Your task to perform on an android device: Clear the cart on target. Add razer blade to the cart on target Image 0: 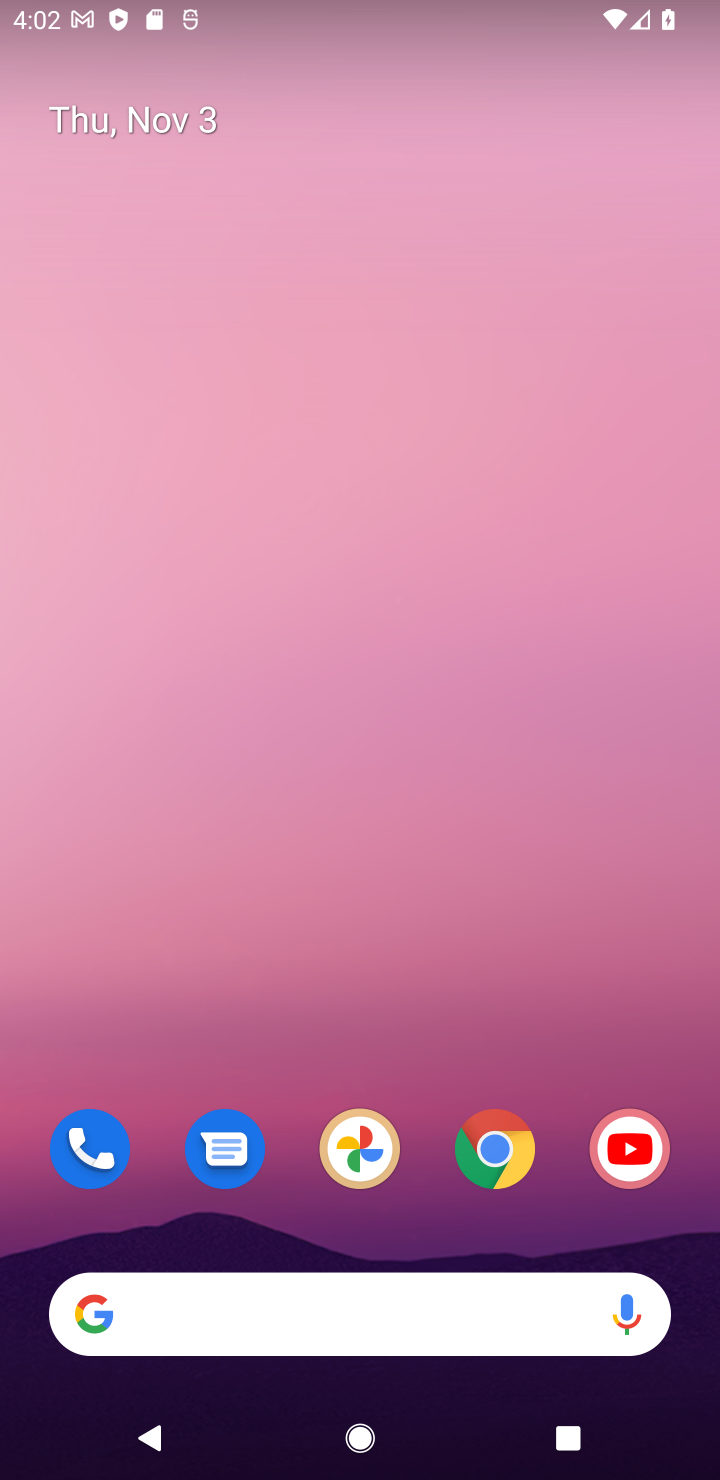
Step 0: drag from (428, 1057) to (710, 2)
Your task to perform on an android device: Clear the cart on target. Add razer blade to the cart on target Image 1: 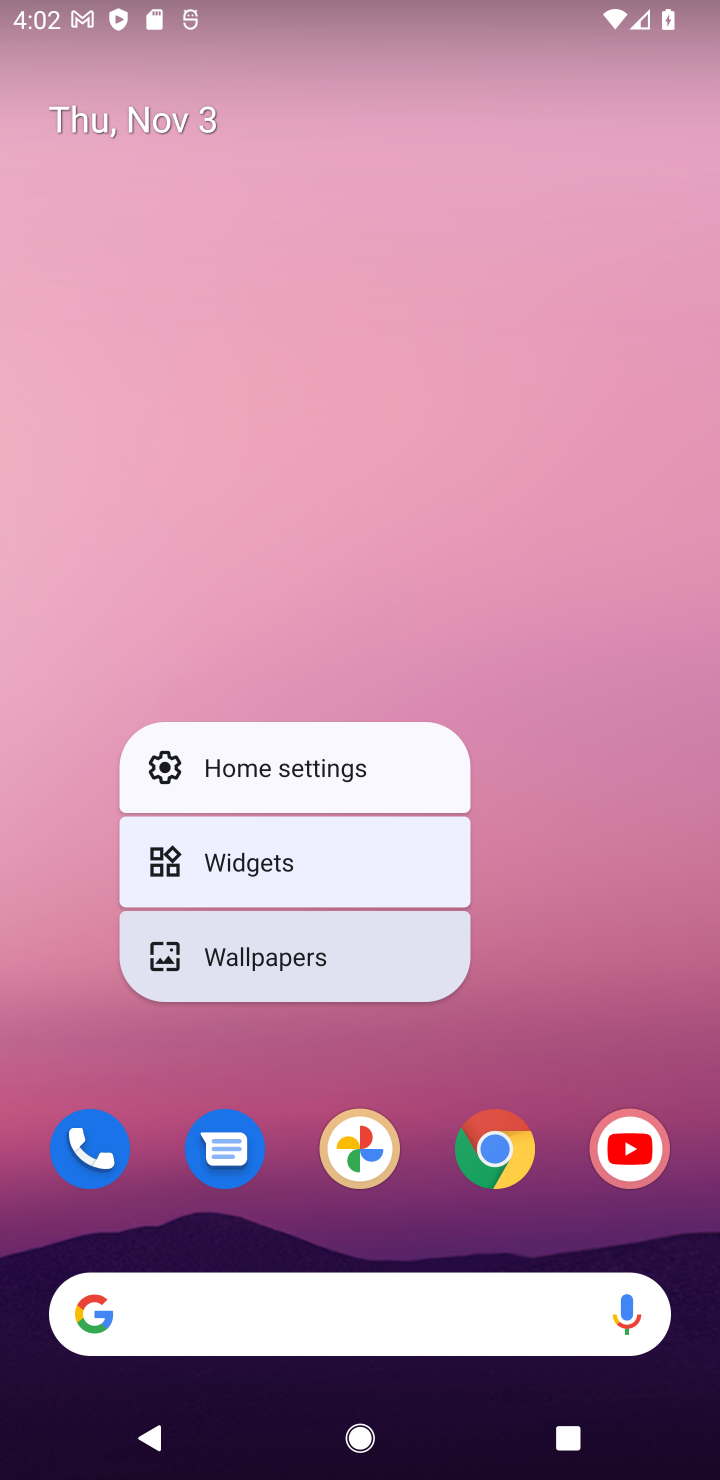
Step 1: click (408, 451)
Your task to perform on an android device: Clear the cart on target. Add razer blade to the cart on target Image 2: 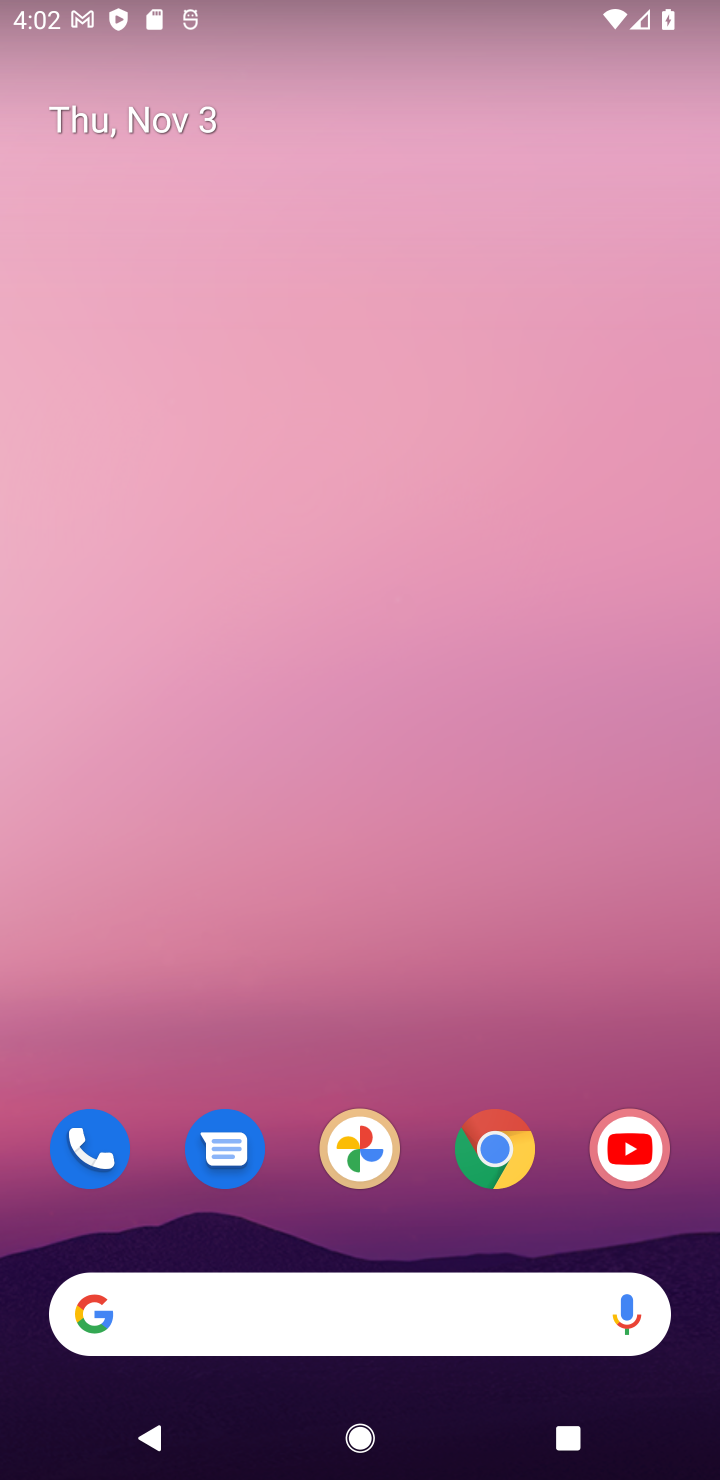
Step 2: drag from (420, 1043) to (330, 99)
Your task to perform on an android device: Clear the cart on target. Add razer blade to the cart on target Image 3: 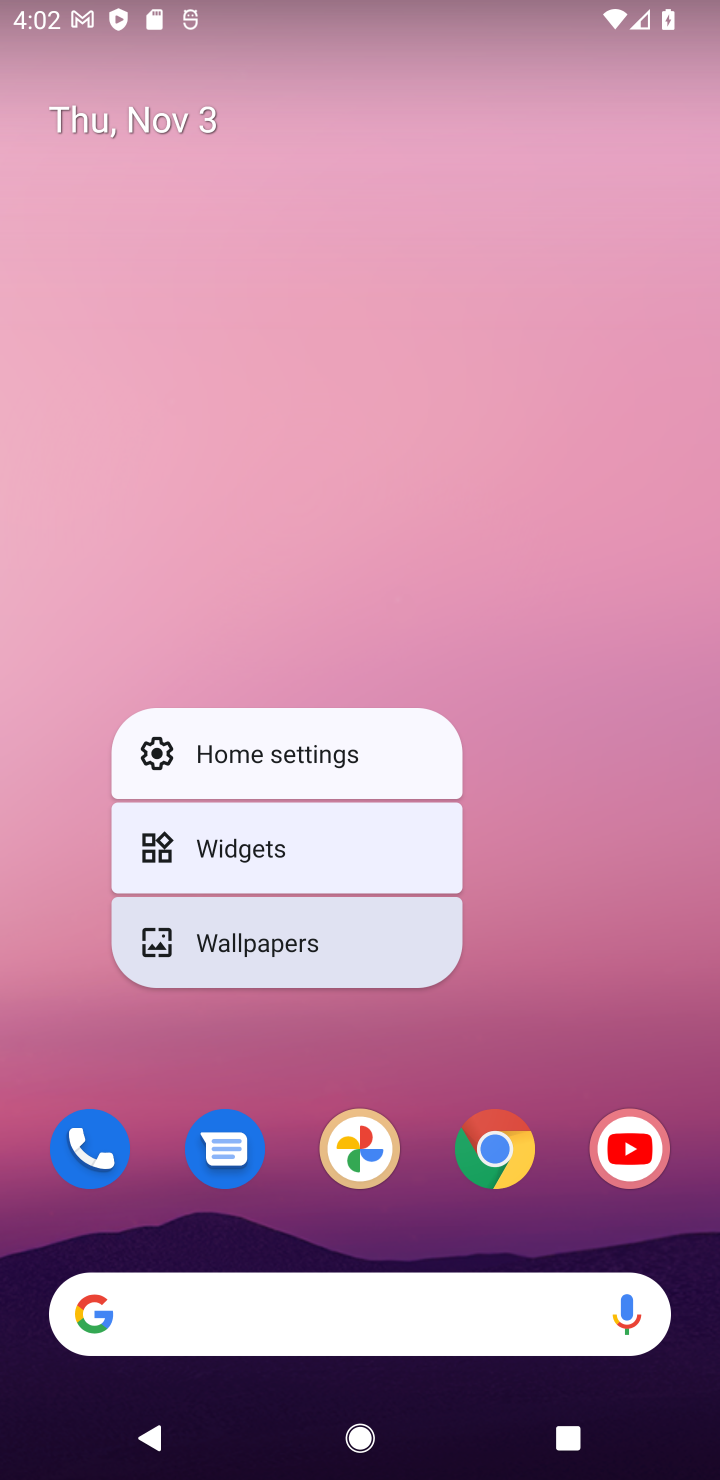
Step 3: click (568, 701)
Your task to perform on an android device: Clear the cart on target. Add razer blade to the cart on target Image 4: 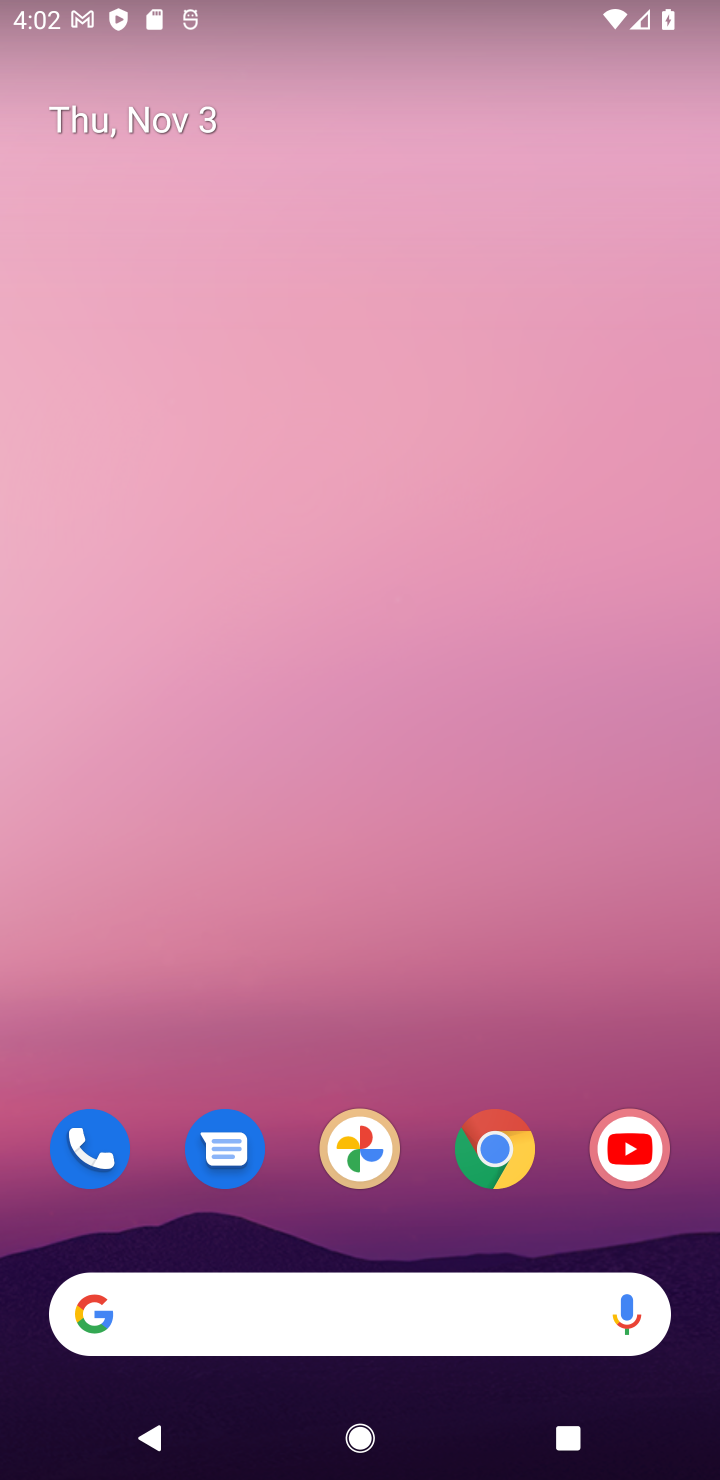
Step 4: drag from (533, 1011) to (417, 143)
Your task to perform on an android device: Clear the cart on target. Add razer blade to the cart on target Image 5: 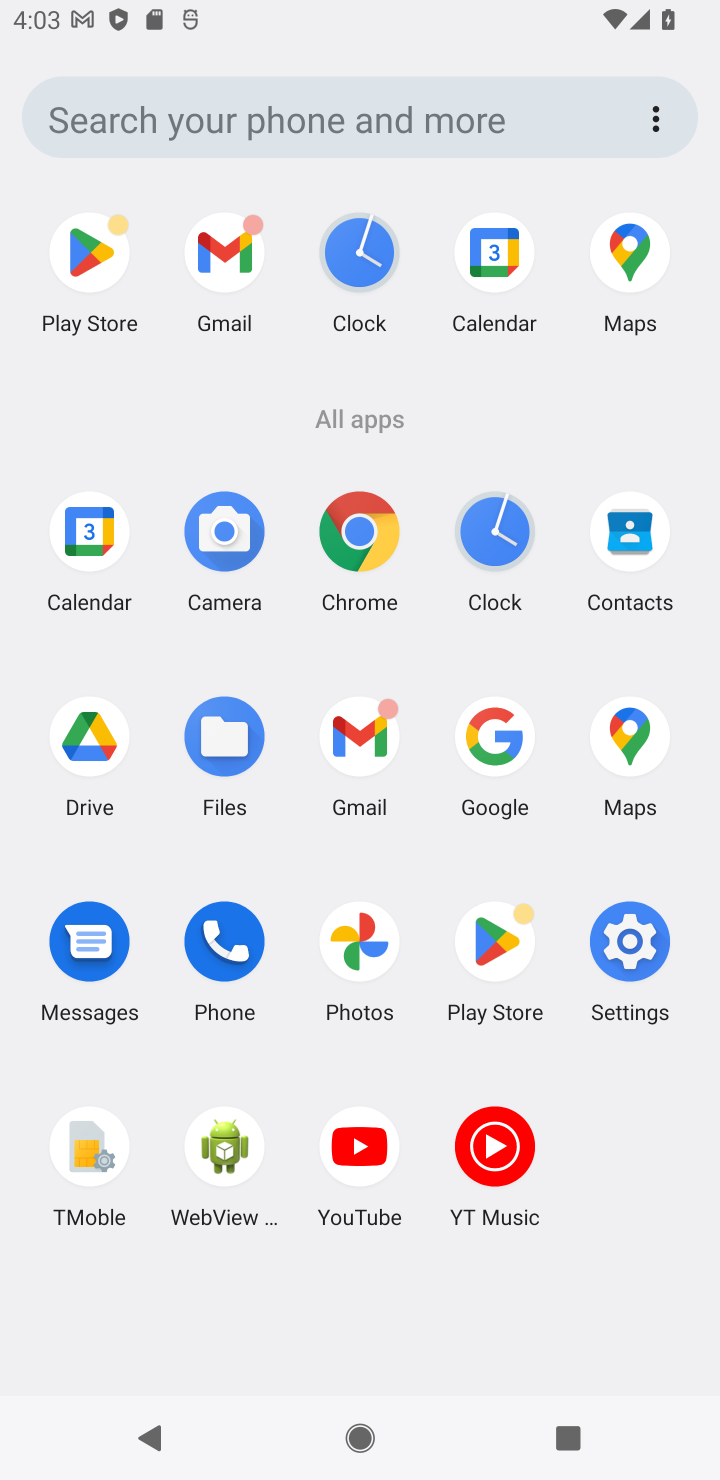
Step 5: click (364, 531)
Your task to perform on an android device: Clear the cart on target. Add razer blade to the cart on target Image 6: 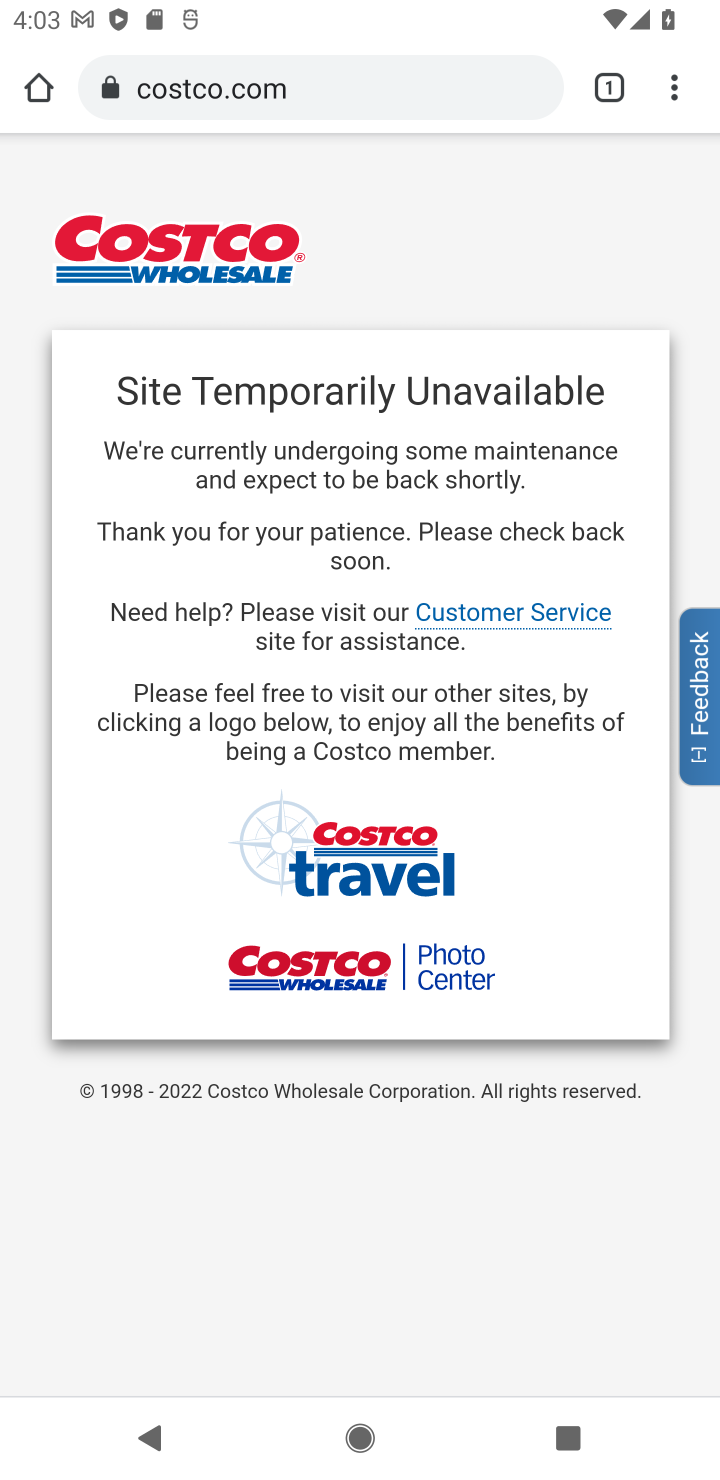
Step 6: click (237, 86)
Your task to perform on an android device: Clear the cart on target. Add razer blade to the cart on target Image 7: 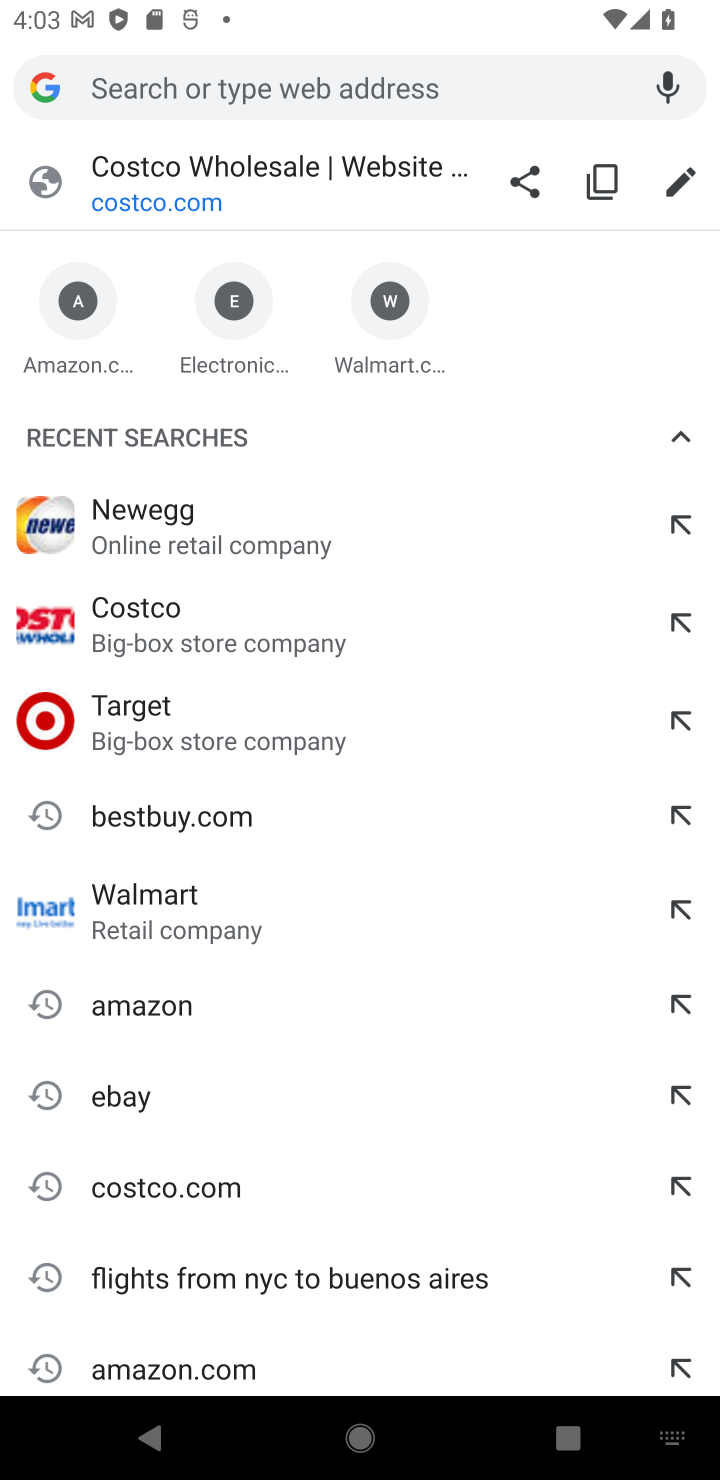
Step 7: type "target"
Your task to perform on an android device: Clear the cart on target. Add razer blade to the cart on target Image 8: 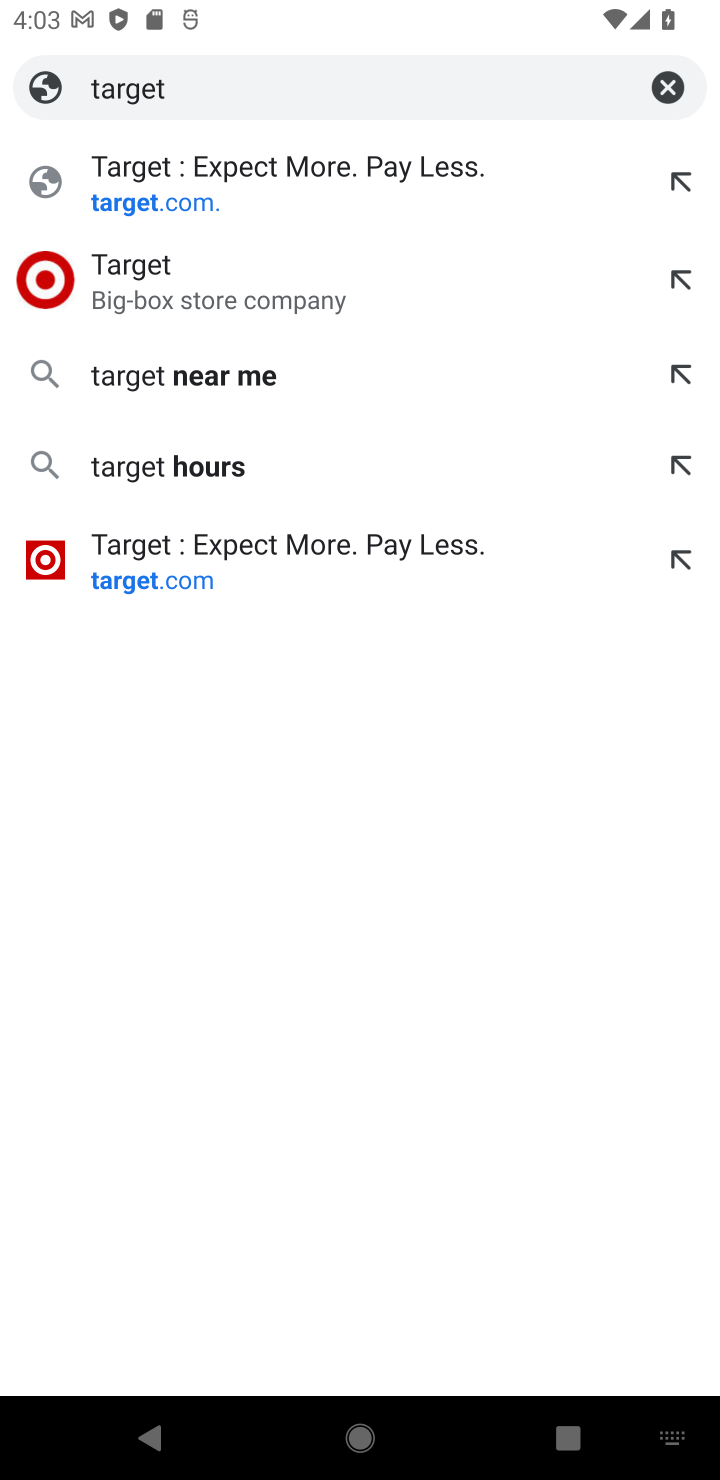
Step 8: click (362, 189)
Your task to perform on an android device: Clear the cart on target. Add razer blade to the cart on target Image 9: 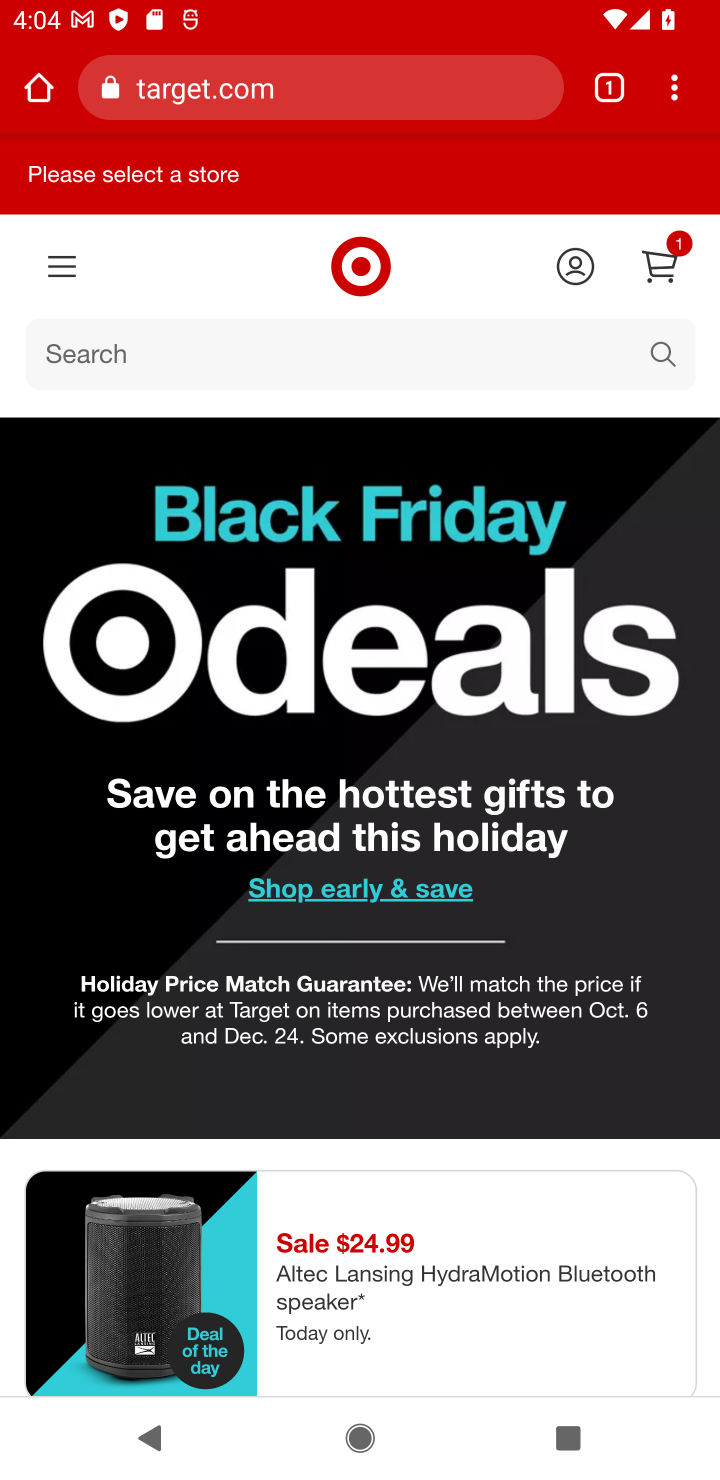
Step 9: click (279, 357)
Your task to perform on an android device: Clear the cart on target. Add razer blade to the cart on target Image 10: 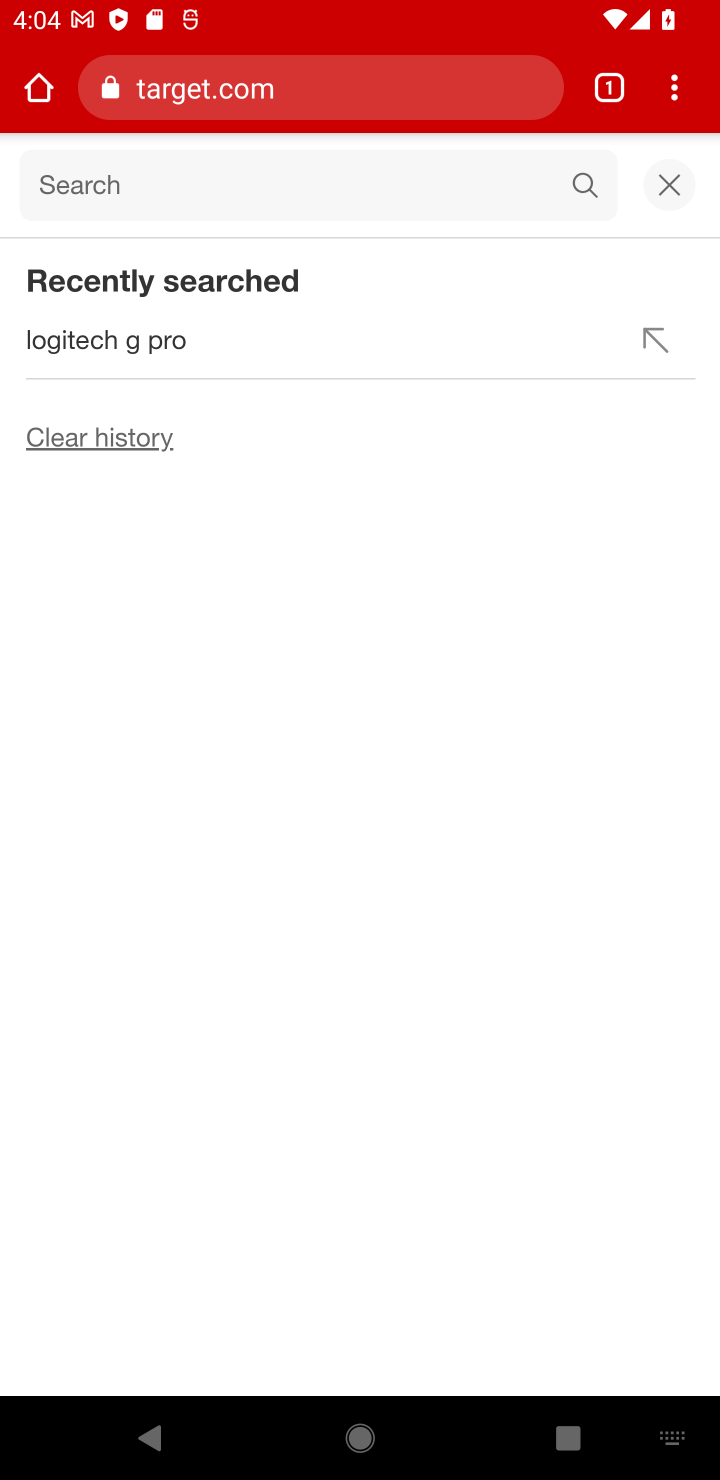
Step 10: click (664, 258)
Your task to perform on an android device: Clear the cart on target. Add razer blade to the cart on target Image 11: 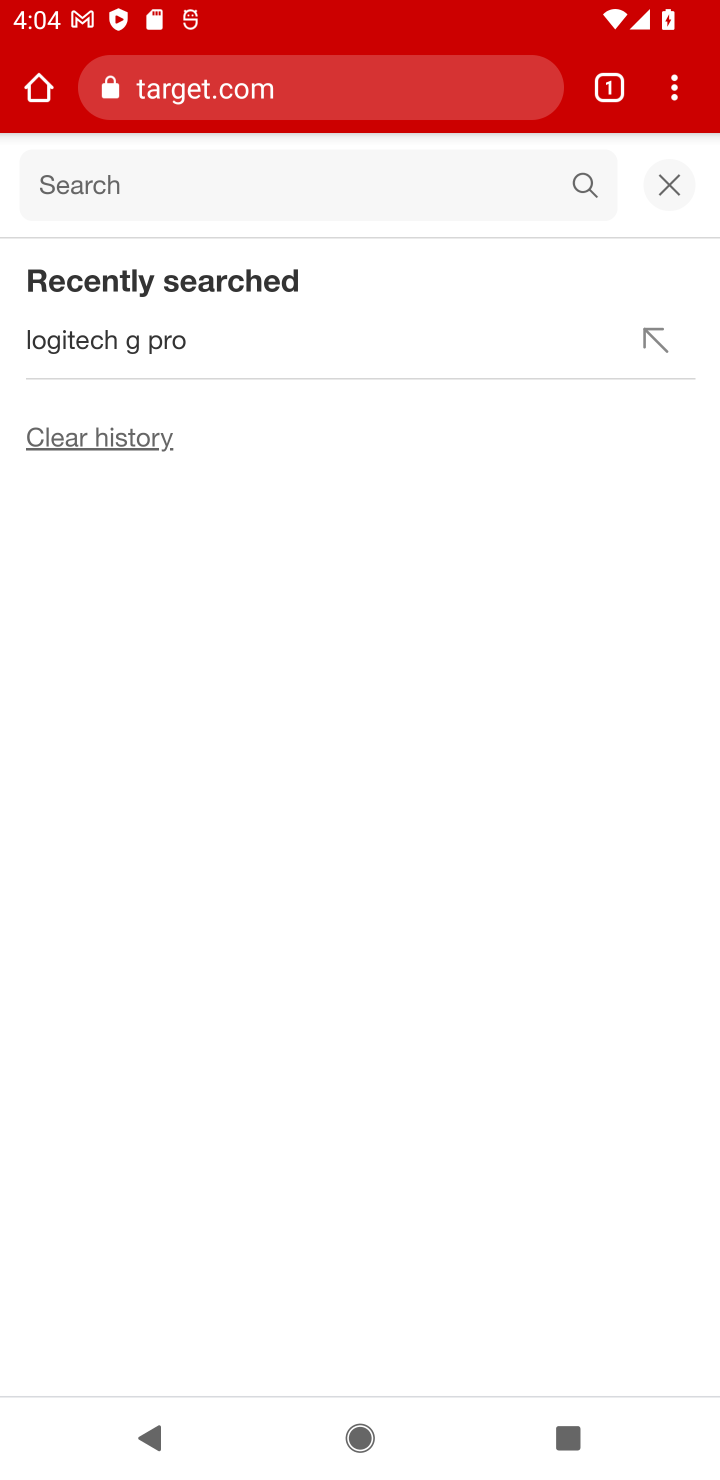
Step 11: click (666, 179)
Your task to perform on an android device: Clear the cart on target. Add razer blade to the cart on target Image 12: 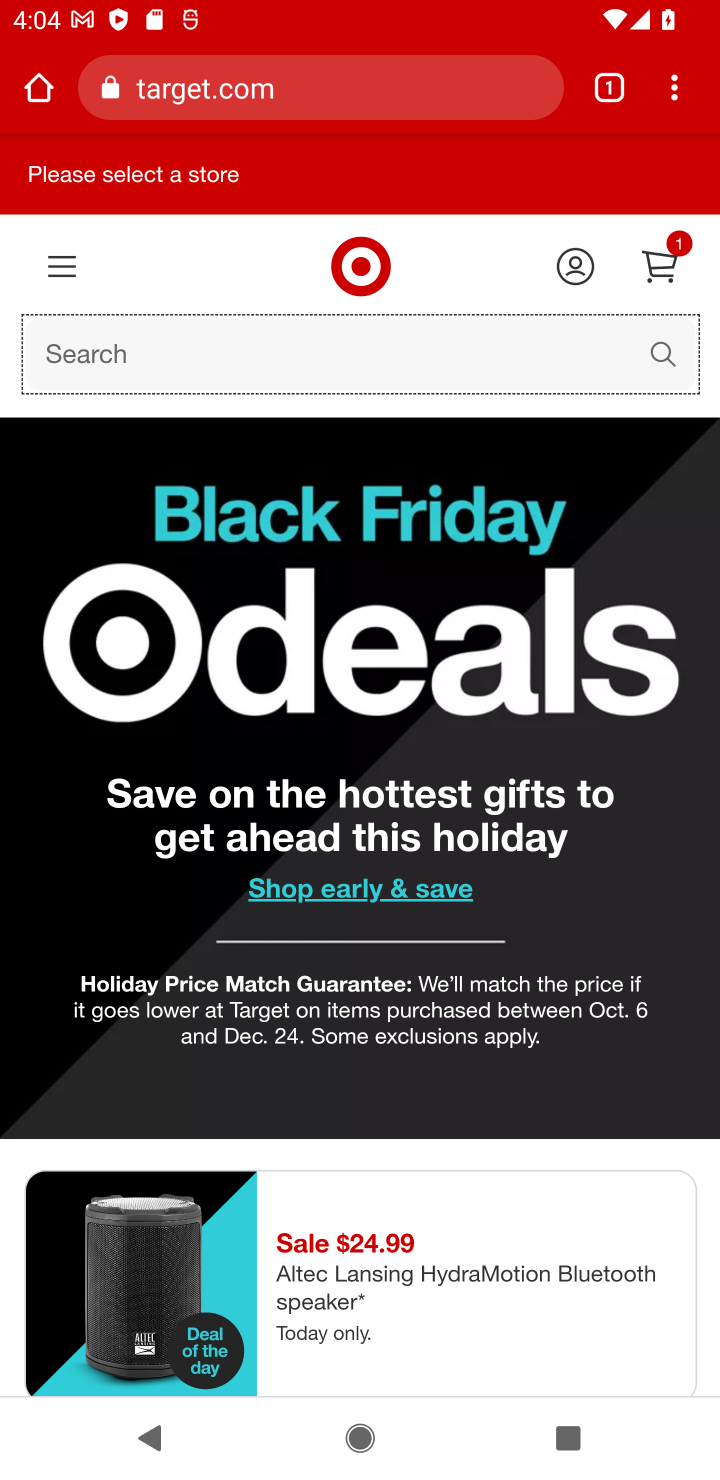
Step 12: click (661, 263)
Your task to perform on an android device: Clear the cart on target. Add razer blade to the cart on target Image 13: 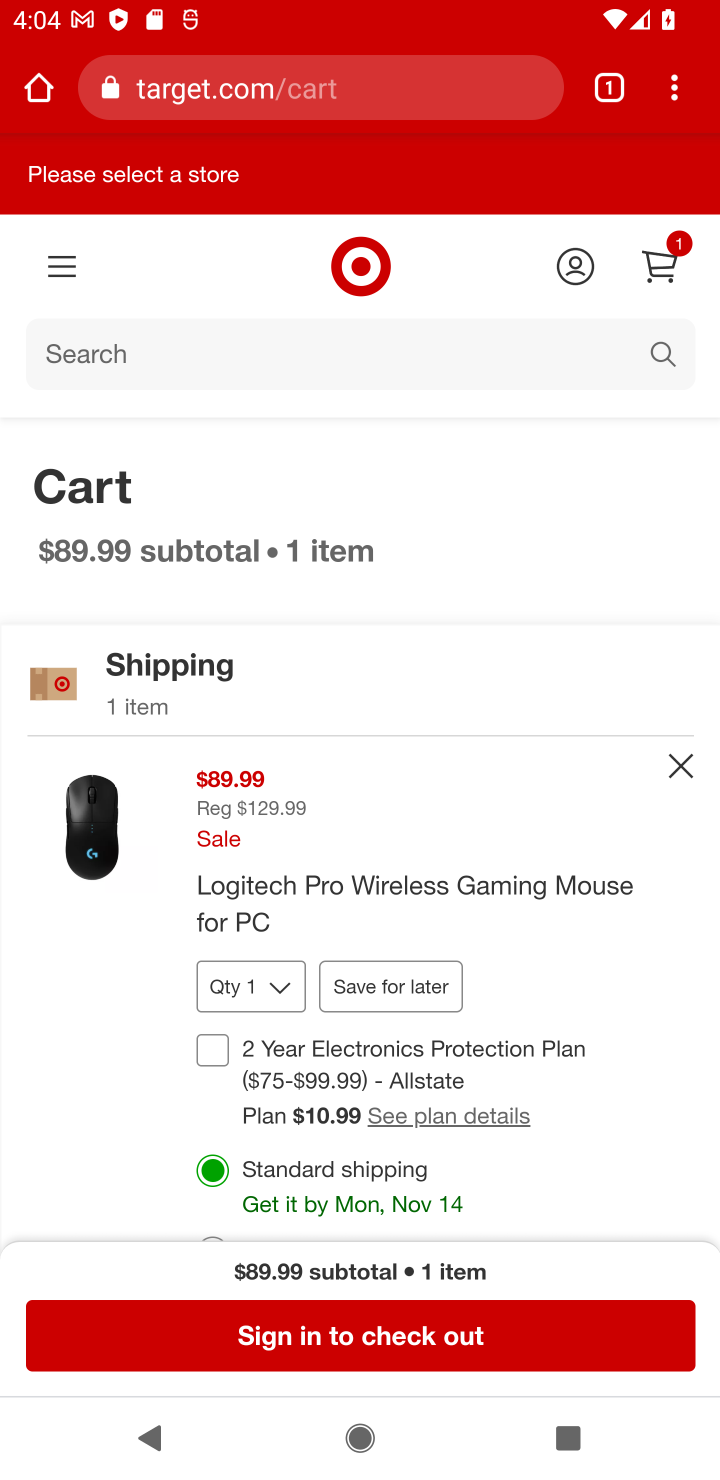
Step 13: click (689, 760)
Your task to perform on an android device: Clear the cart on target. Add razer blade to the cart on target Image 14: 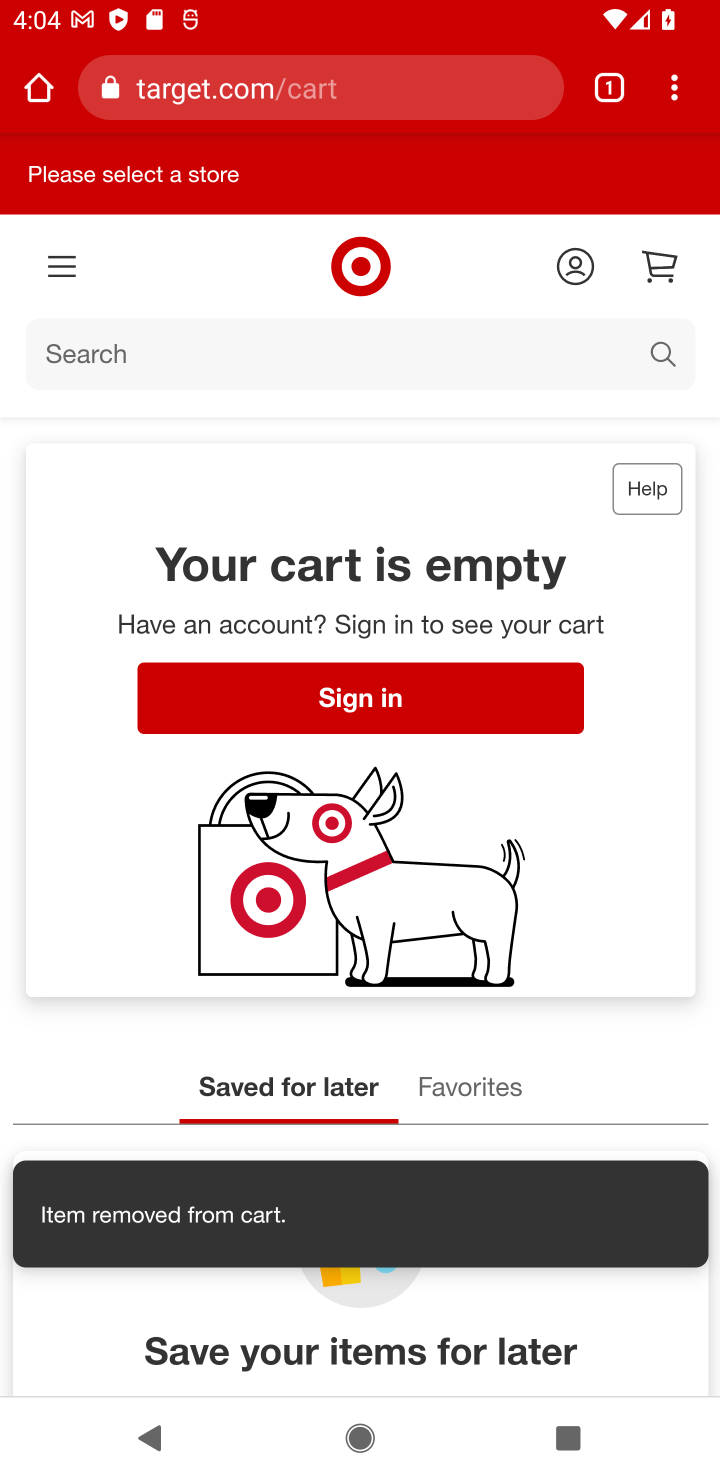
Step 14: task complete